Your task to perform on an android device: Turn off the flashlight Image 0: 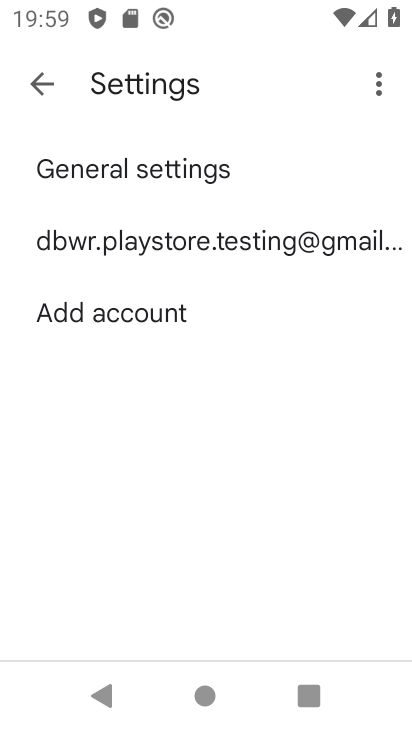
Step 0: press home button
Your task to perform on an android device: Turn off the flashlight Image 1: 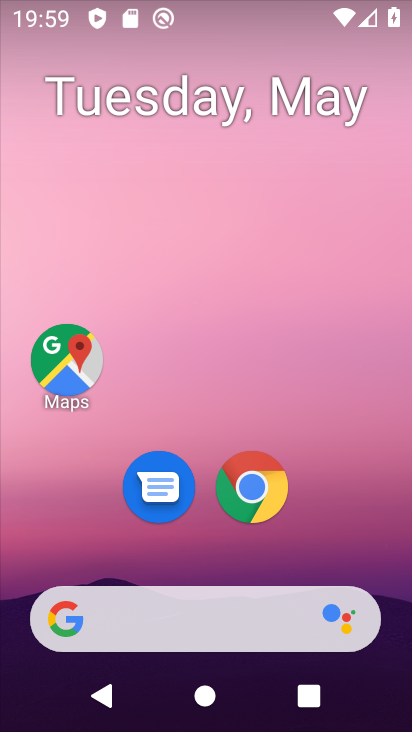
Step 1: drag from (321, 534) to (265, 6)
Your task to perform on an android device: Turn off the flashlight Image 2: 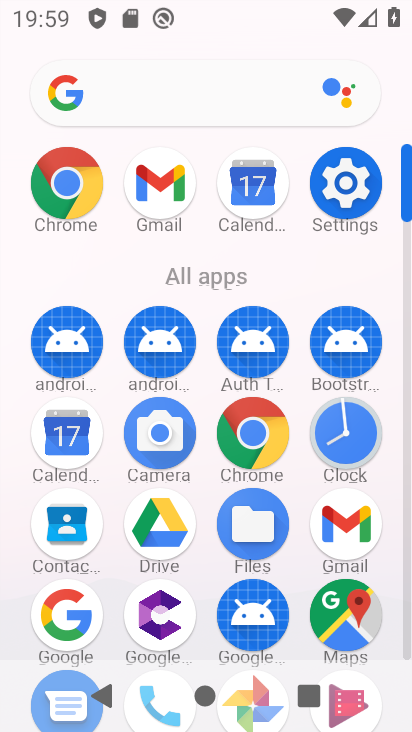
Step 2: click (350, 192)
Your task to perform on an android device: Turn off the flashlight Image 3: 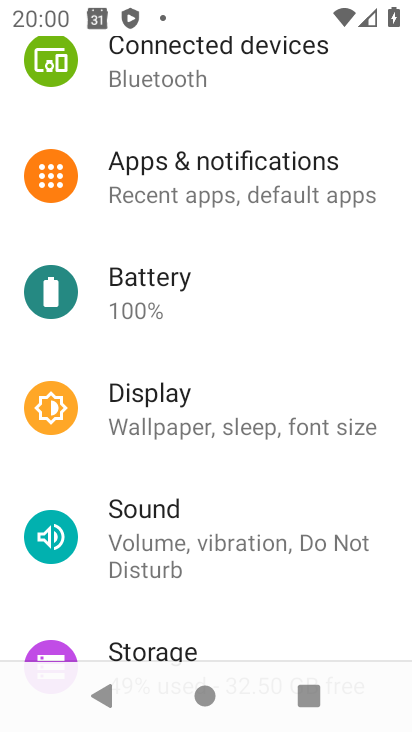
Step 3: task complete